Your task to perform on an android device: Turn on the flashlight Image 0: 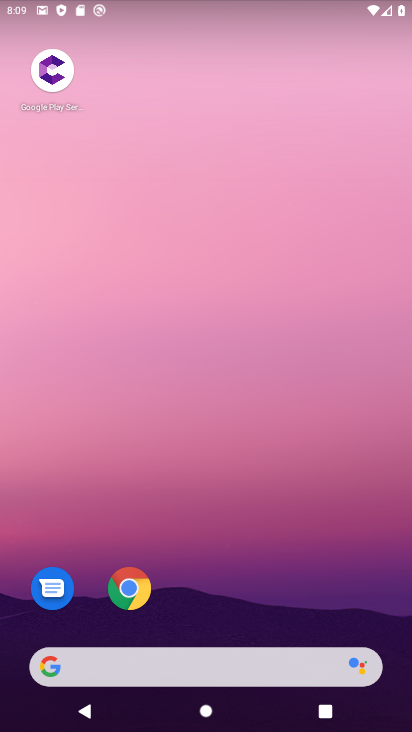
Step 0: drag from (234, 542) to (175, 96)
Your task to perform on an android device: Turn on the flashlight Image 1: 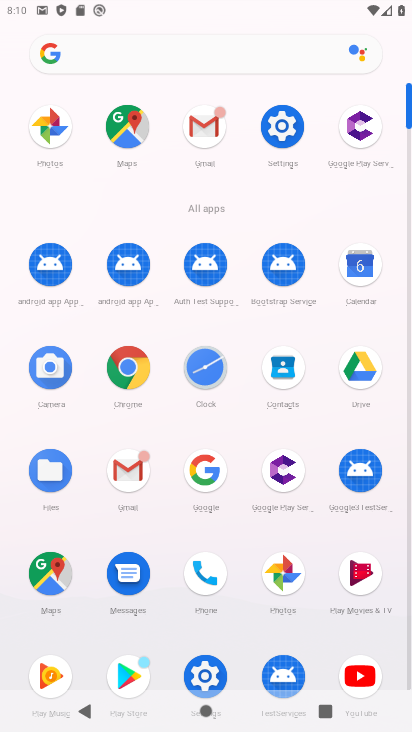
Step 1: click (279, 124)
Your task to perform on an android device: Turn on the flashlight Image 2: 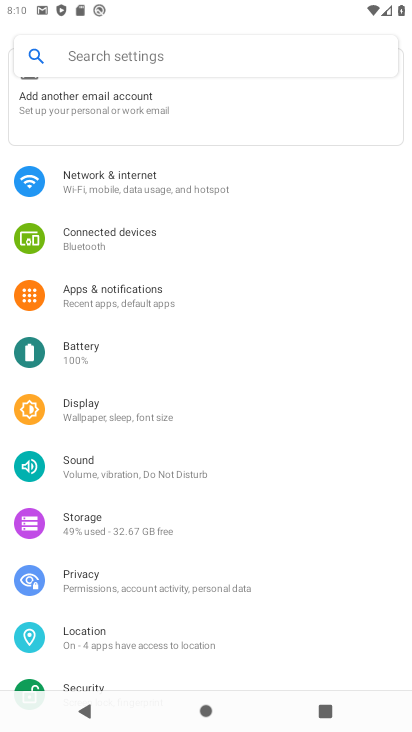
Step 2: click (80, 405)
Your task to perform on an android device: Turn on the flashlight Image 3: 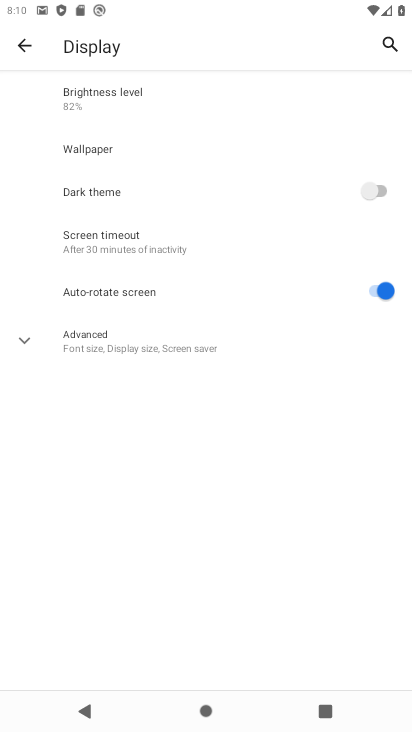
Step 3: task complete